Your task to perform on an android device: refresh tabs in the chrome app Image 0: 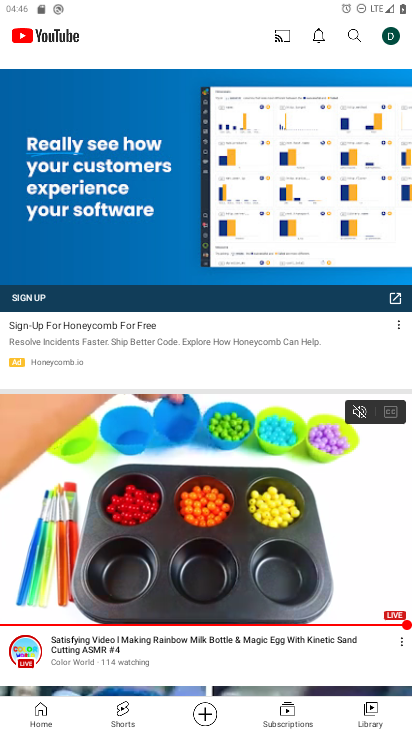
Step 0: press home button
Your task to perform on an android device: refresh tabs in the chrome app Image 1: 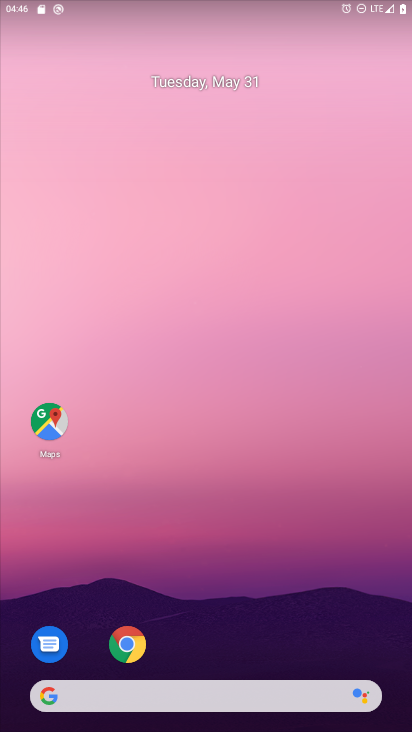
Step 1: click (128, 640)
Your task to perform on an android device: refresh tabs in the chrome app Image 2: 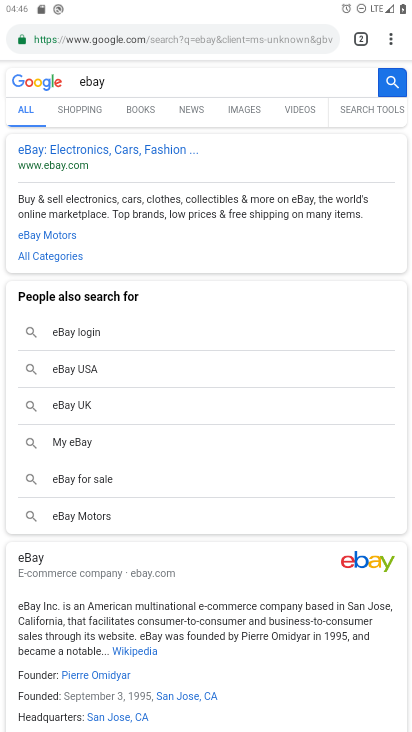
Step 2: click (390, 39)
Your task to perform on an android device: refresh tabs in the chrome app Image 3: 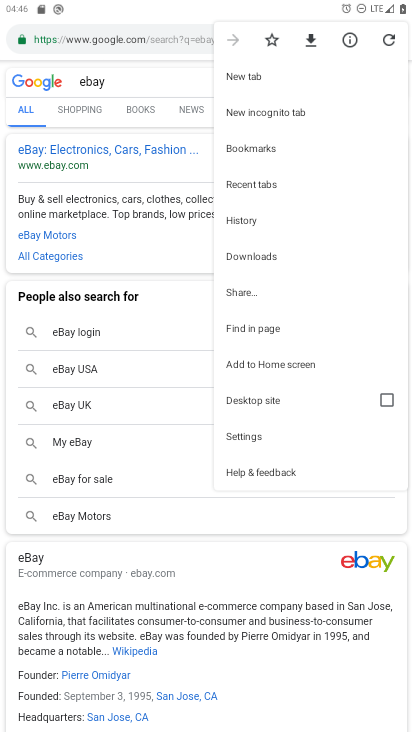
Step 3: click (390, 39)
Your task to perform on an android device: refresh tabs in the chrome app Image 4: 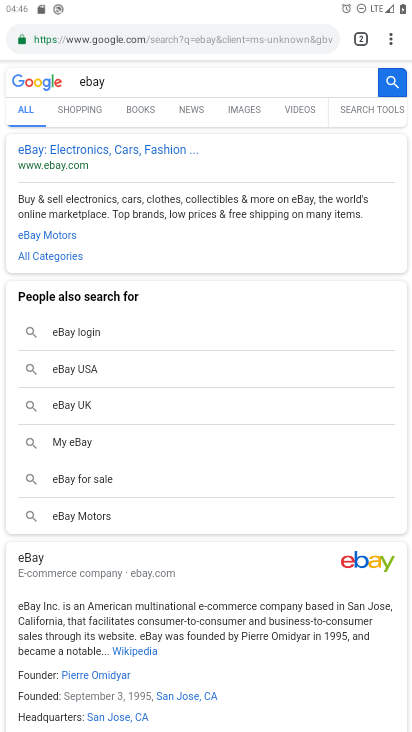
Step 4: task complete